Your task to perform on an android device: What's the weather going to be tomorrow? Image 0: 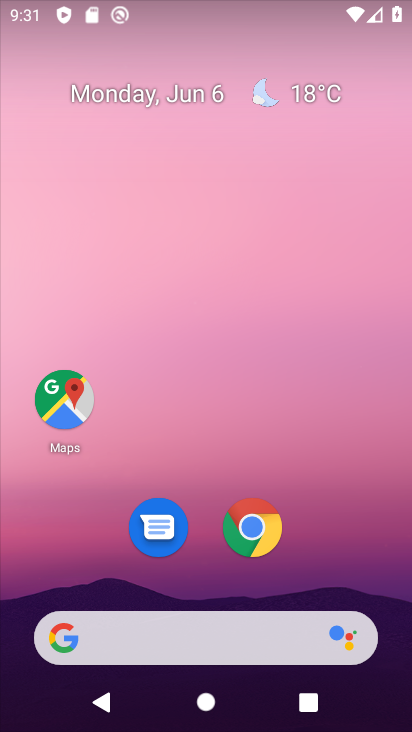
Step 0: drag from (271, 715) to (385, 705)
Your task to perform on an android device: What's the weather going to be tomorrow? Image 1: 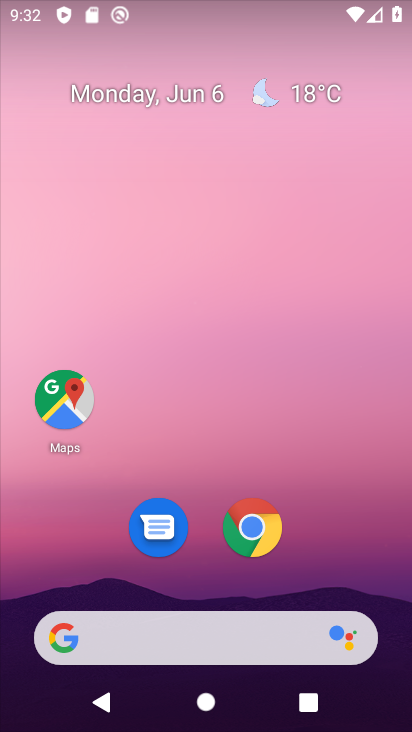
Step 1: click (253, 621)
Your task to perform on an android device: What's the weather going to be tomorrow? Image 2: 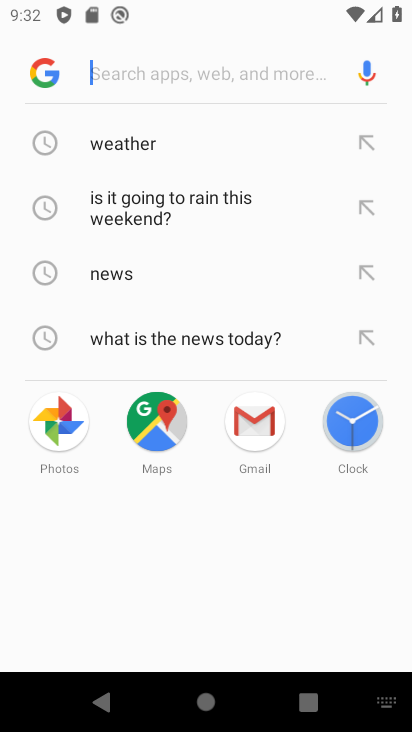
Step 2: type "What's the weather going to be tomorrow?"
Your task to perform on an android device: What's the weather going to be tomorrow? Image 3: 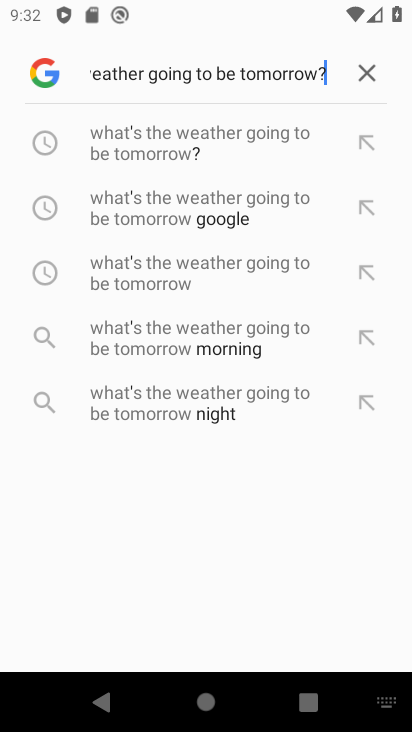
Step 3: press enter
Your task to perform on an android device: What's the weather going to be tomorrow? Image 4: 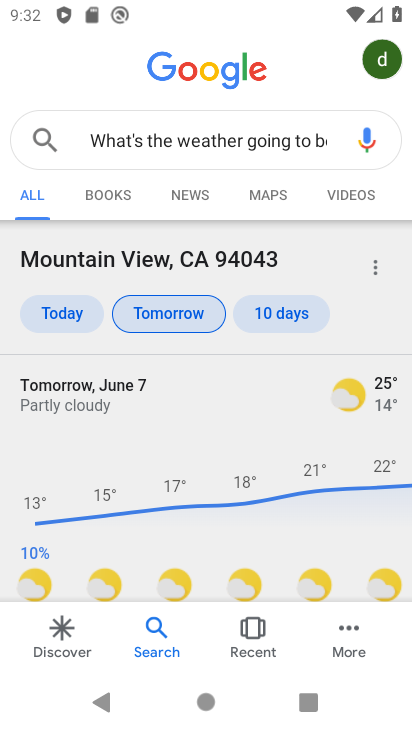
Step 4: task complete